Your task to perform on an android device: turn smart compose on in the gmail app Image 0: 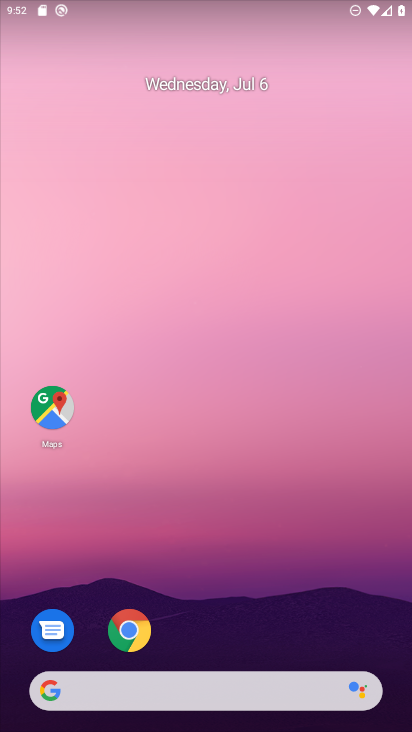
Step 0: press home button
Your task to perform on an android device: turn smart compose on in the gmail app Image 1: 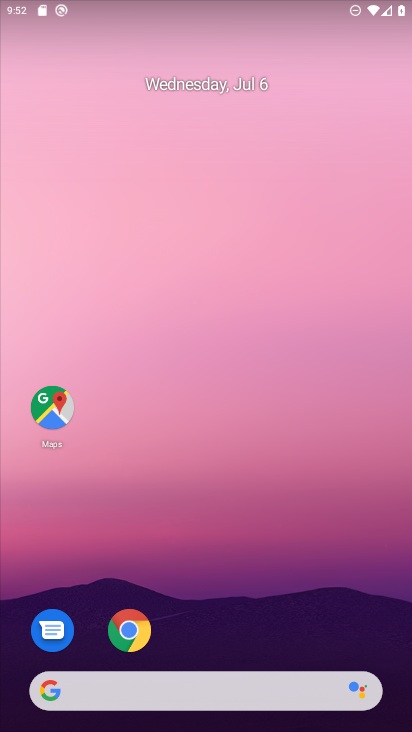
Step 1: drag from (238, 676) to (276, 158)
Your task to perform on an android device: turn smart compose on in the gmail app Image 2: 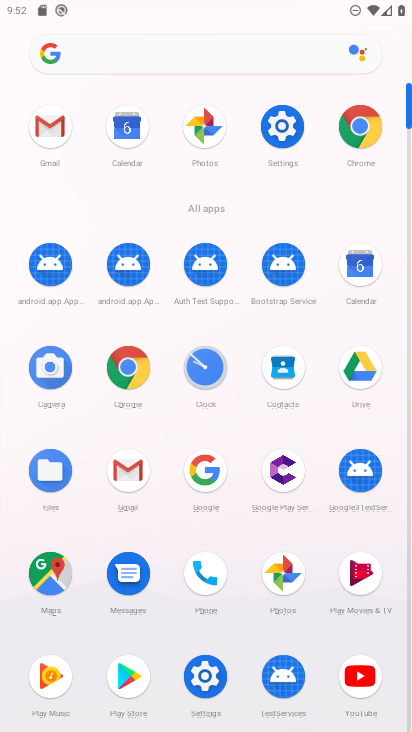
Step 2: click (35, 137)
Your task to perform on an android device: turn smart compose on in the gmail app Image 3: 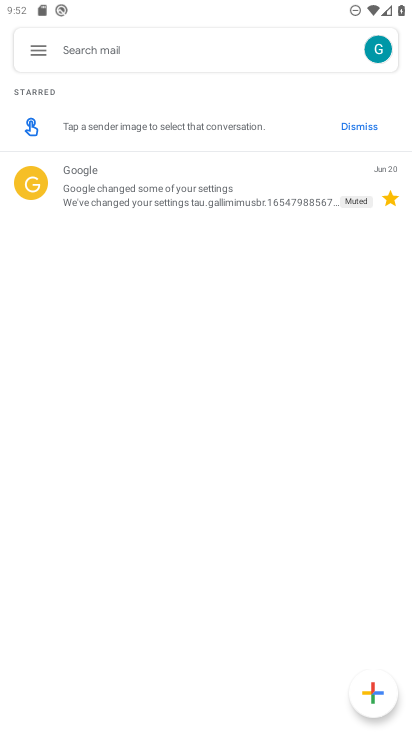
Step 3: click (37, 58)
Your task to perform on an android device: turn smart compose on in the gmail app Image 4: 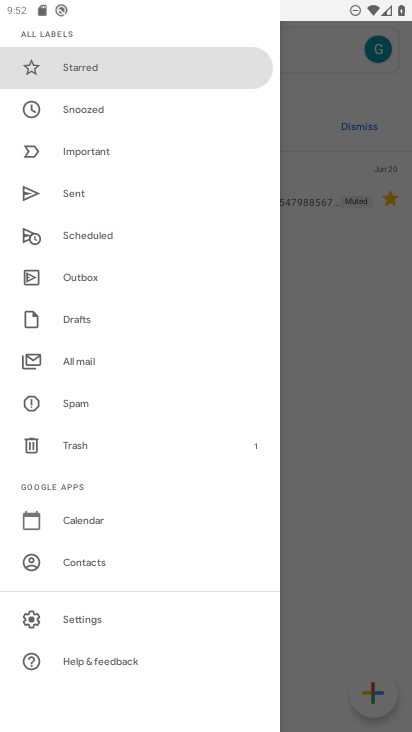
Step 4: click (78, 612)
Your task to perform on an android device: turn smart compose on in the gmail app Image 5: 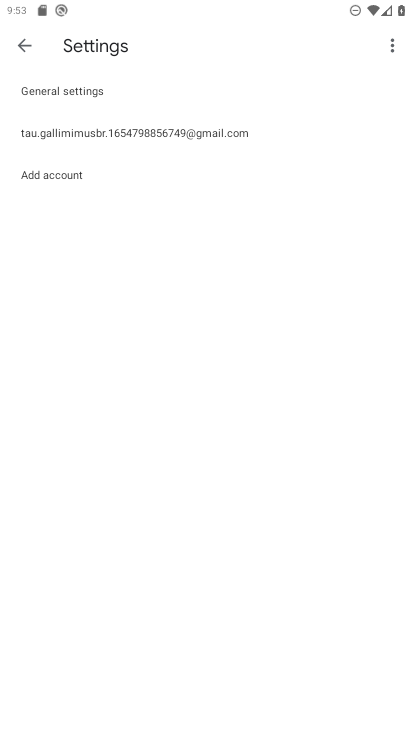
Step 5: click (70, 138)
Your task to perform on an android device: turn smart compose on in the gmail app Image 6: 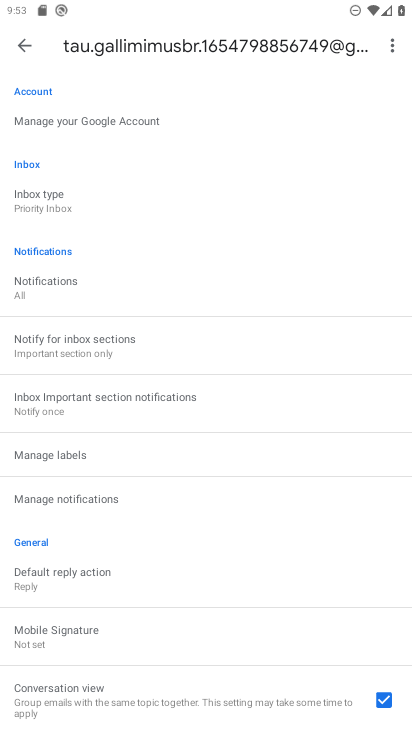
Step 6: task complete